Your task to perform on an android device: Check the weather Image 0: 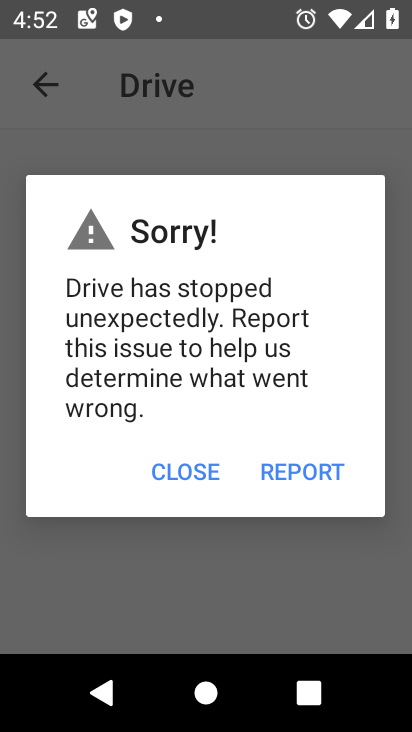
Step 0: press home button
Your task to perform on an android device: Check the weather Image 1: 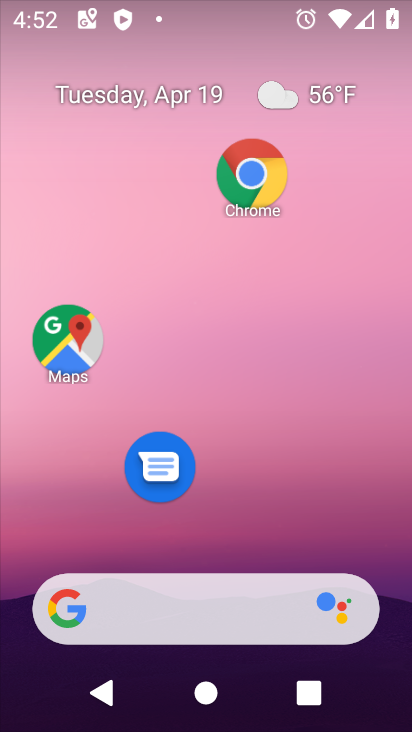
Step 1: click (317, 96)
Your task to perform on an android device: Check the weather Image 2: 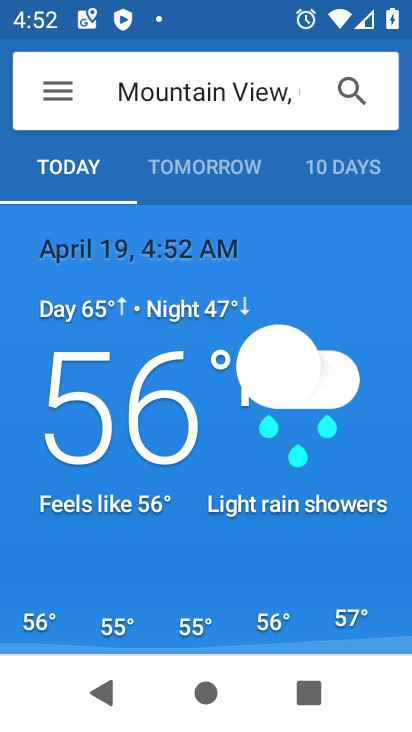
Step 2: task complete